Your task to perform on an android device: see tabs open on other devices in the chrome app Image 0: 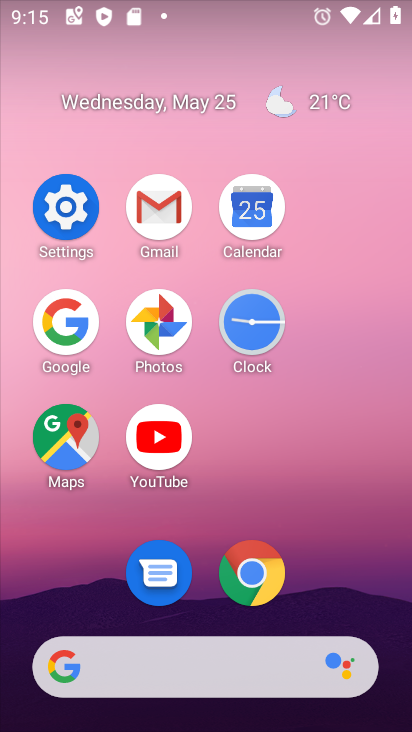
Step 0: click (262, 546)
Your task to perform on an android device: see tabs open on other devices in the chrome app Image 1: 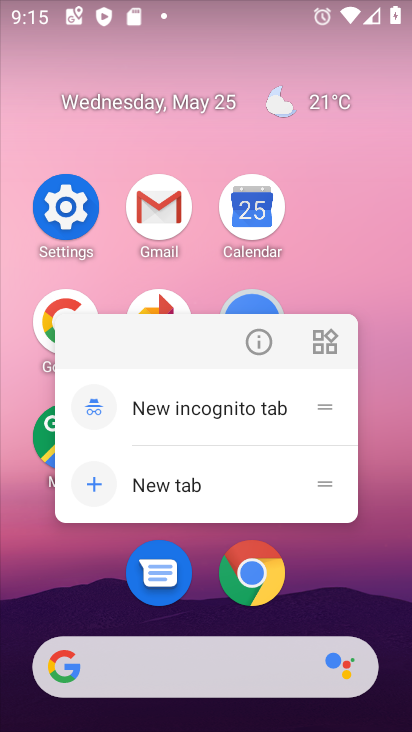
Step 1: click (256, 542)
Your task to perform on an android device: see tabs open on other devices in the chrome app Image 2: 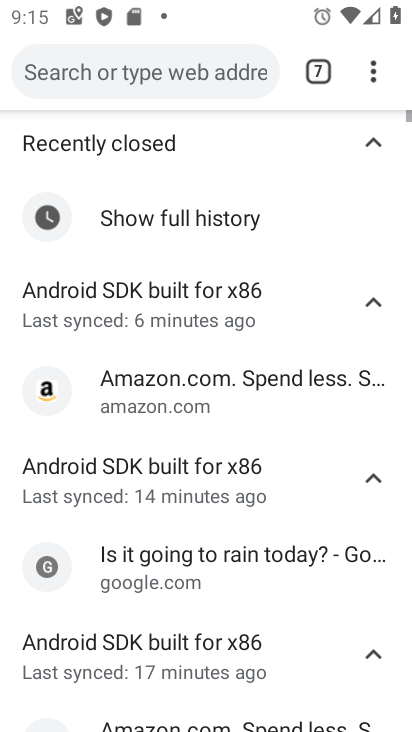
Step 2: click (380, 58)
Your task to perform on an android device: see tabs open on other devices in the chrome app Image 3: 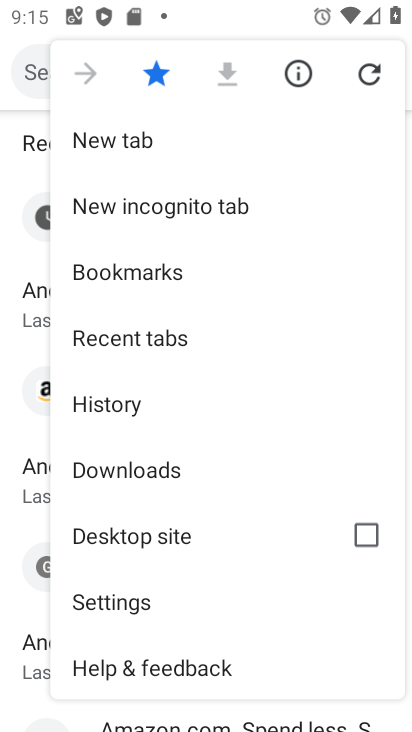
Step 3: click (158, 322)
Your task to perform on an android device: see tabs open on other devices in the chrome app Image 4: 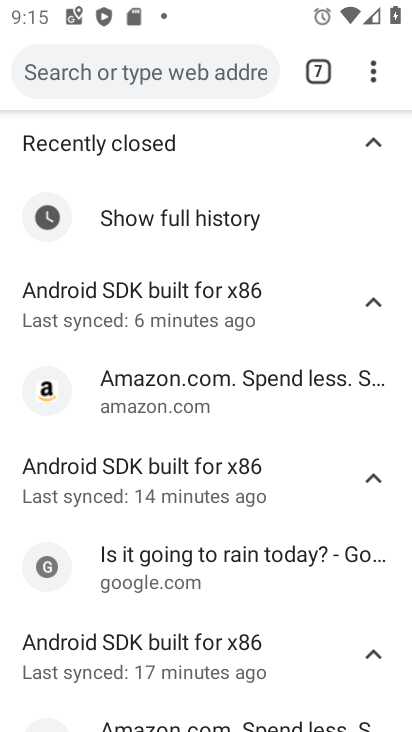
Step 4: task complete